Your task to perform on an android device: toggle javascript in the chrome app Image 0: 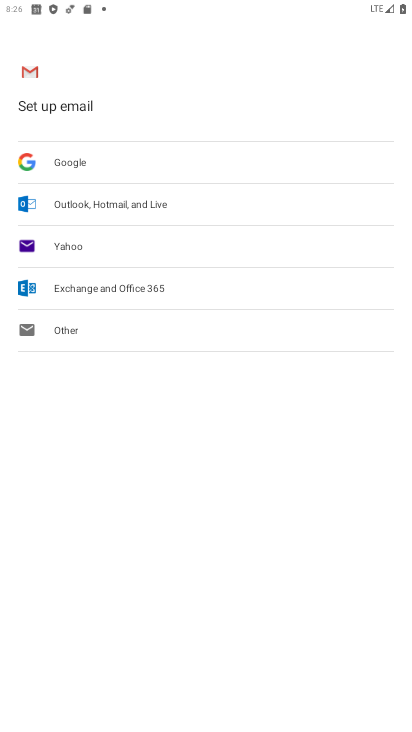
Step 0: press home button
Your task to perform on an android device: toggle javascript in the chrome app Image 1: 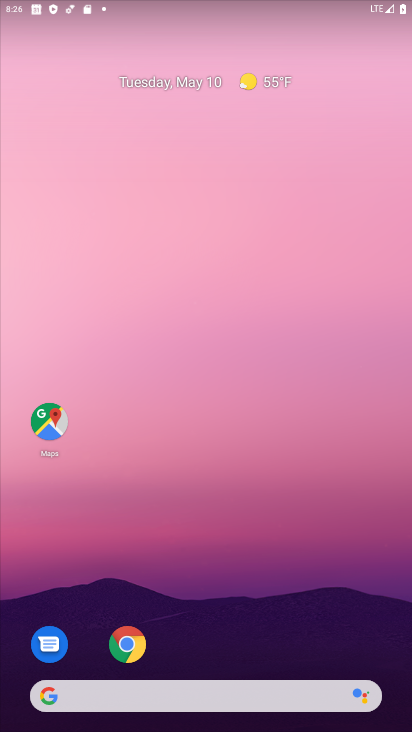
Step 1: click (136, 651)
Your task to perform on an android device: toggle javascript in the chrome app Image 2: 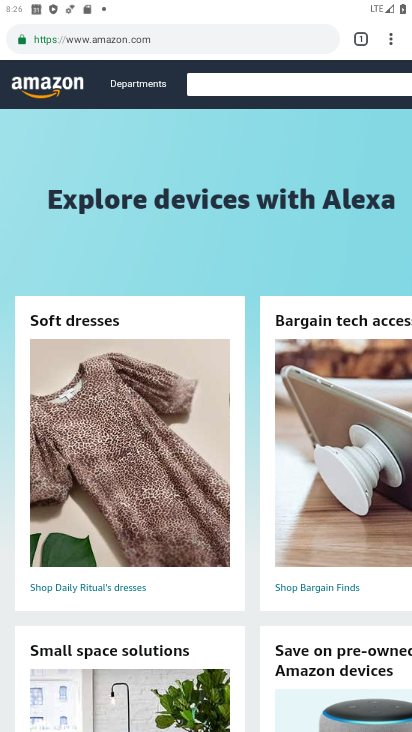
Step 2: click (391, 36)
Your task to perform on an android device: toggle javascript in the chrome app Image 3: 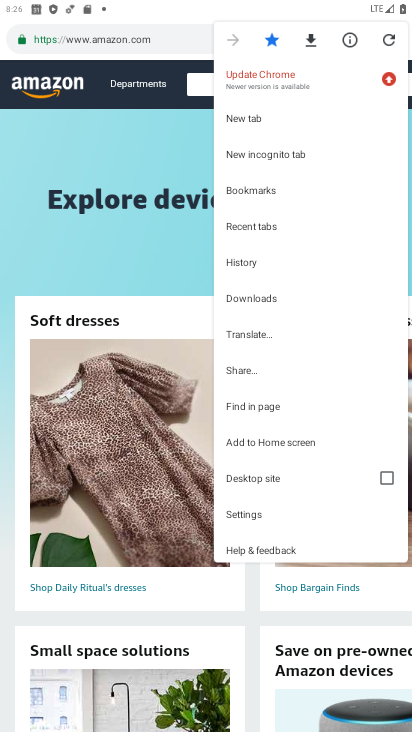
Step 3: click (237, 516)
Your task to perform on an android device: toggle javascript in the chrome app Image 4: 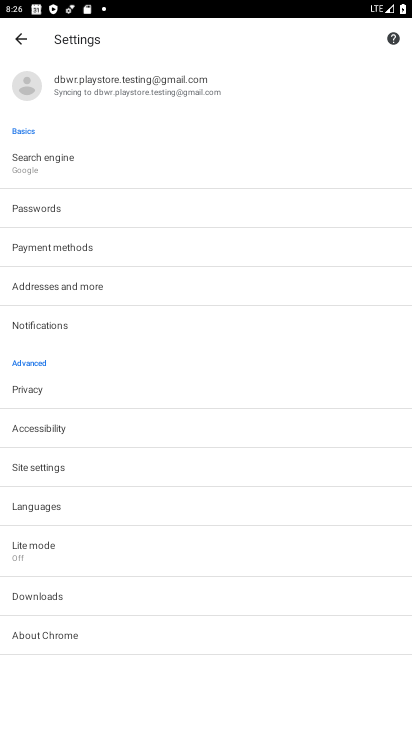
Step 4: click (129, 461)
Your task to perform on an android device: toggle javascript in the chrome app Image 5: 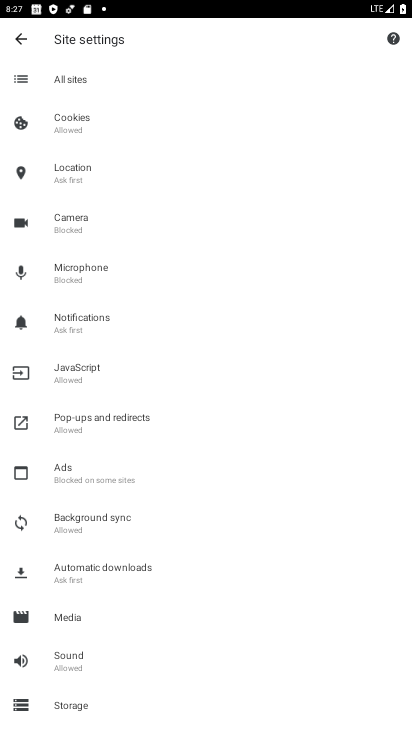
Step 5: click (123, 373)
Your task to perform on an android device: toggle javascript in the chrome app Image 6: 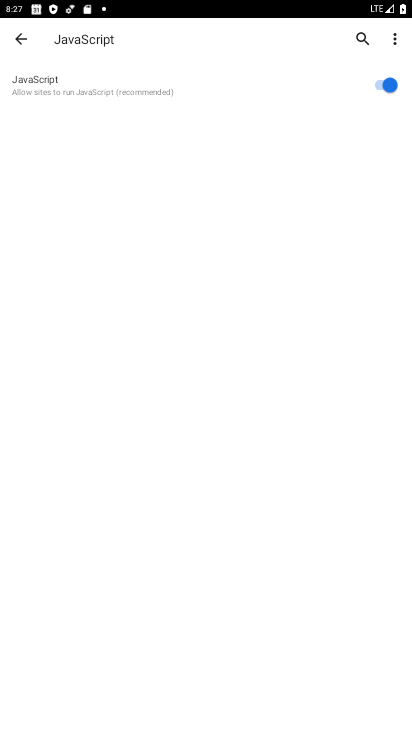
Step 6: click (376, 88)
Your task to perform on an android device: toggle javascript in the chrome app Image 7: 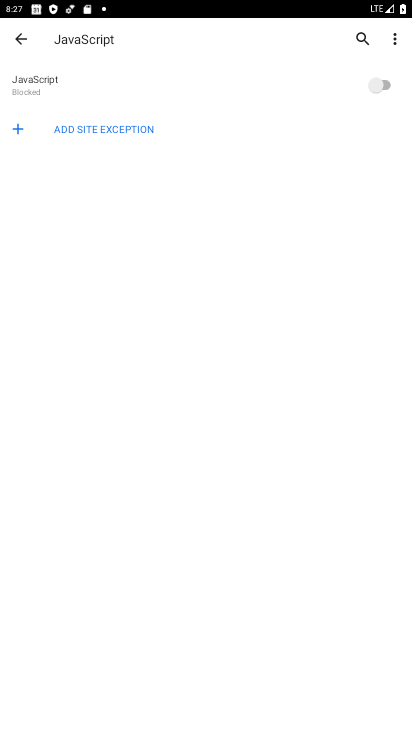
Step 7: task complete